Your task to perform on an android device: empty trash in google photos Image 0: 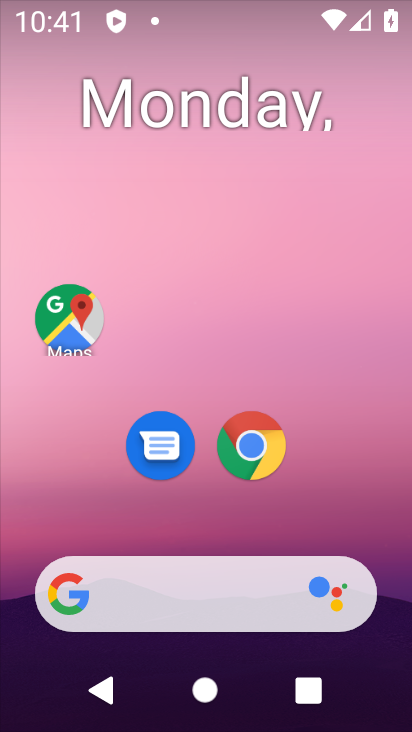
Step 0: drag from (320, 463) to (90, 60)
Your task to perform on an android device: empty trash in google photos Image 1: 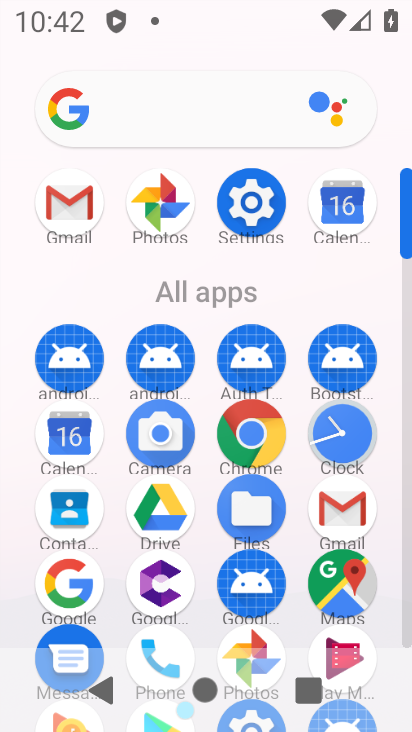
Step 1: click (175, 203)
Your task to perform on an android device: empty trash in google photos Image 2: 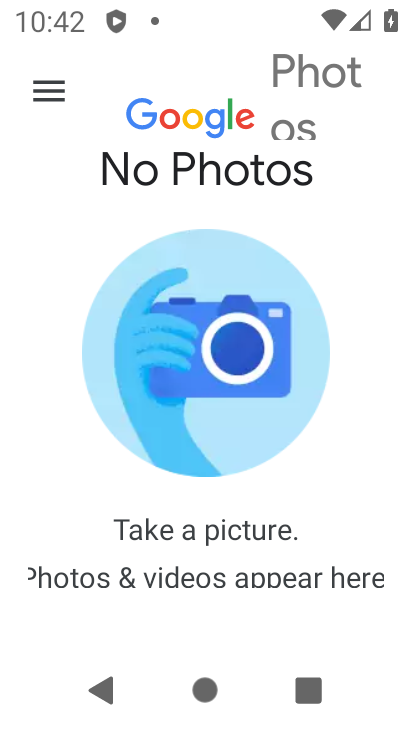
Step 2: click (63, 84)
Your task to perform on an android device: empty trash in google photos Image 3: 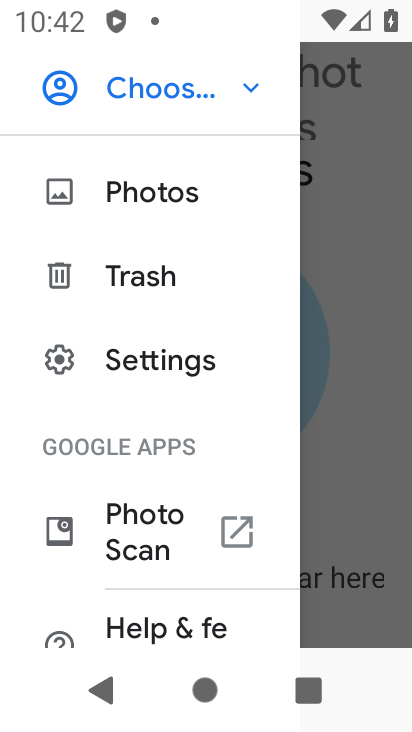
Step 3: click (109, 266)
Your task to perform on an android device: empty trash in google photos Image 4: 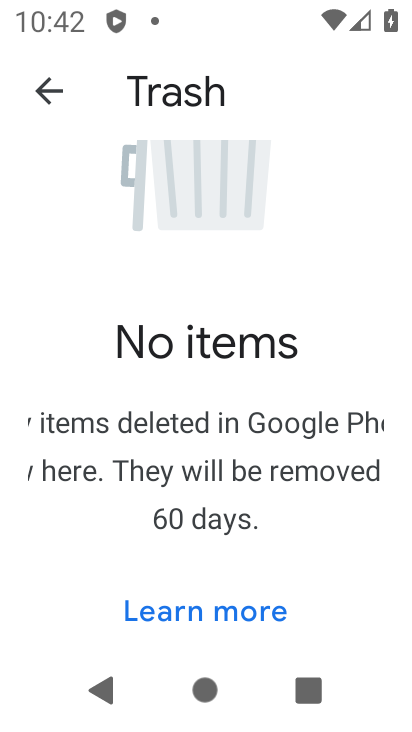
Step 4: task complete